Your task to perform on an android device: When is my next appointment? Image 0: 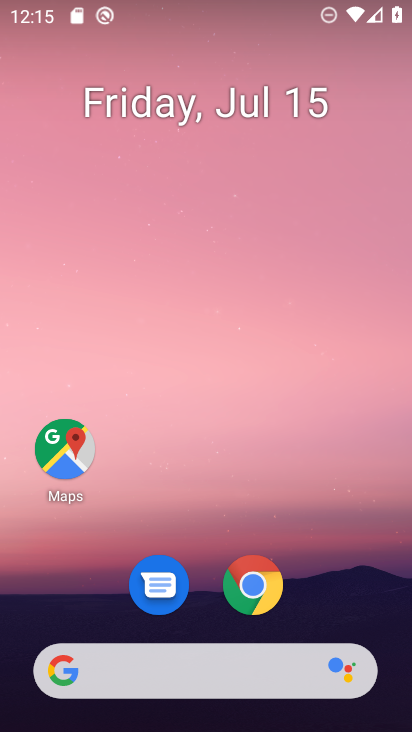
Step 0: drag from (348, 429) to (361, 23)
Your task to perform on an android device: When is my next appointment? Image 1: 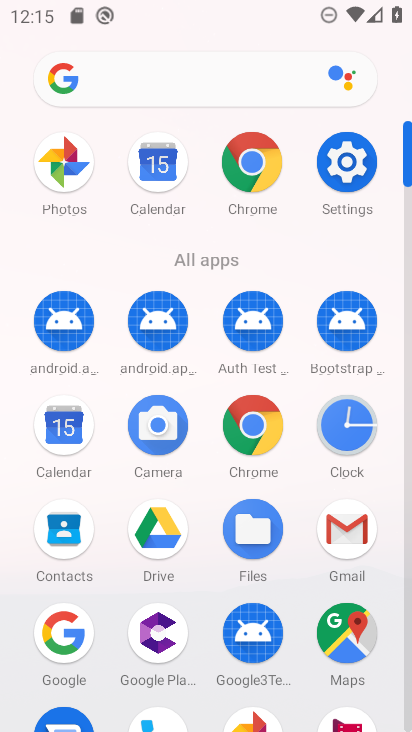
Step 1: click (67, 423)
Your task to perform on an android device: When is my next appointment? Image 2: 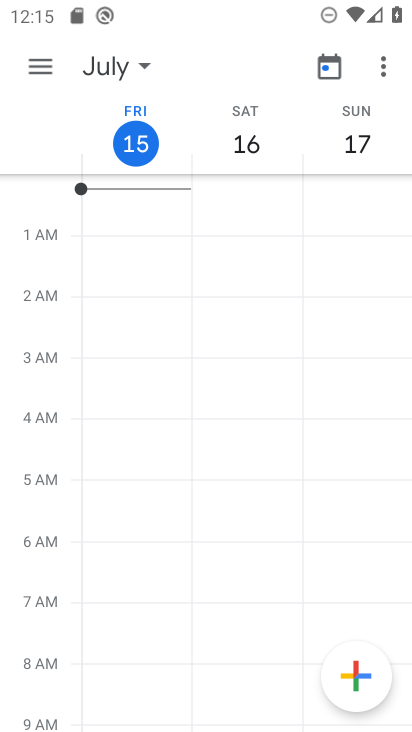
Step 2: task complete